Your task to perform on an android device: What's the weather going to be this weekend? Image 0: 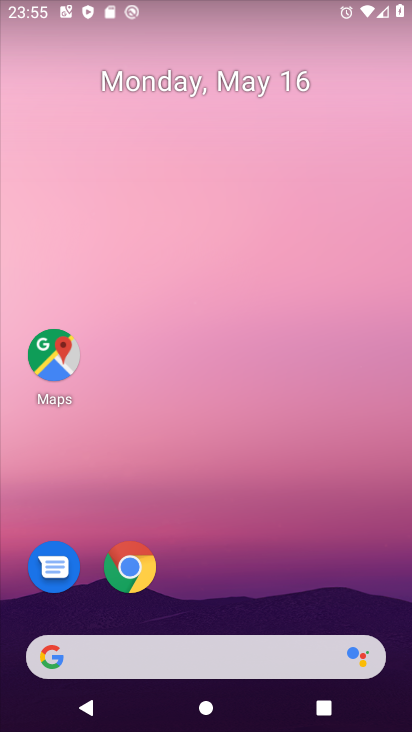
Step 0: drag from (249, 528) to (194, 185)
Your task to perform on an android device: What's the weather going to be this weekend? Image 1: 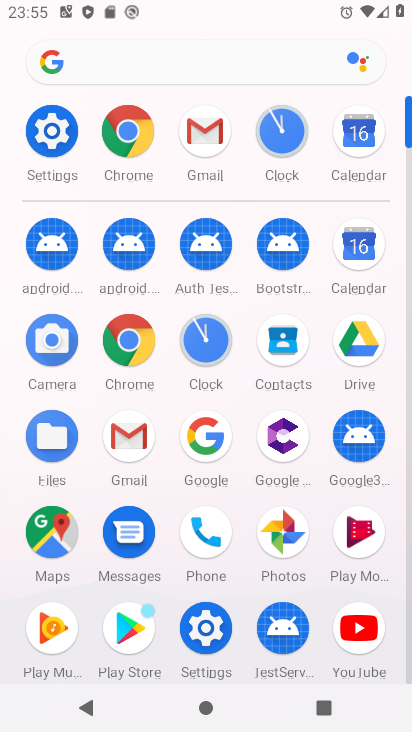
Step 1: click (55, 60)
Your task to perform on an android device: What's the weather going to be this weekend? Image 2: 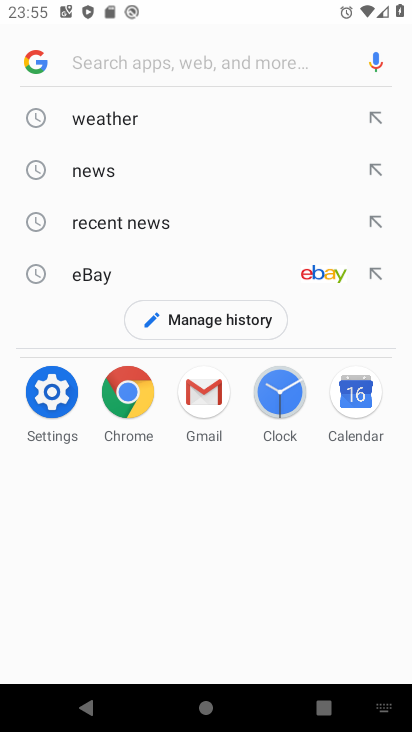
Step 2: click (104, 112)
Your task to perform on an android device: What's the weather going to be this weekend? Image 3: 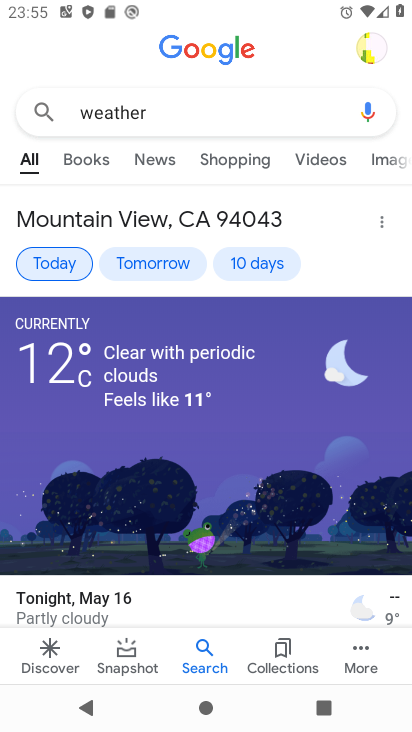
Step 3: click (257, 260)
Your task to perform on an android device: What's the weather going to be this weekend? Image 4: 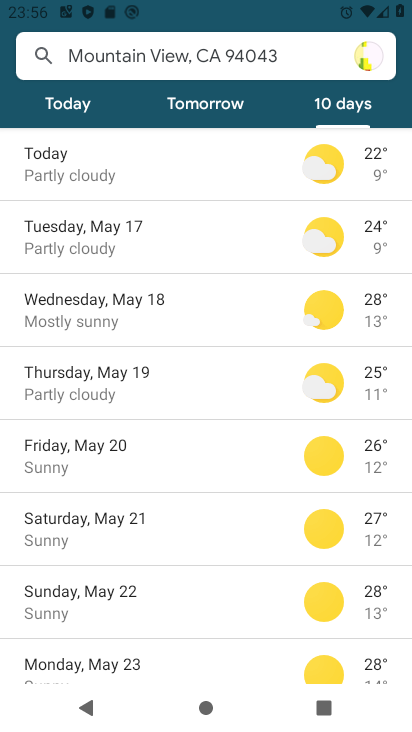
Step 4: task complete